Your task to perform on an android device: install app "Lyft - Rideshare, Bikes, Scooters & Transit" Image 0: 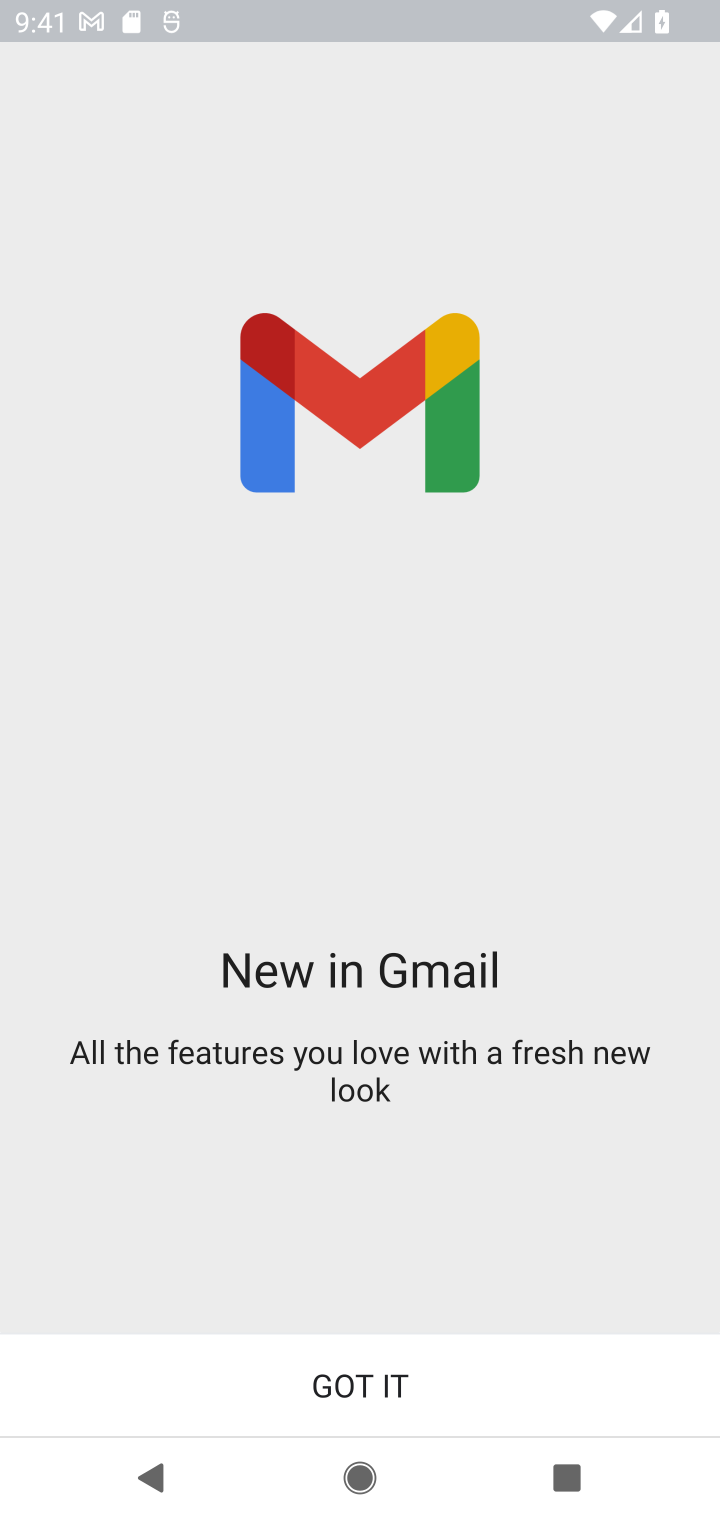
Step 0: press home button
Your task to perform on an android device: install app "Lyft - Rideshare, Bikes, Scooters & Transit" Image 1: 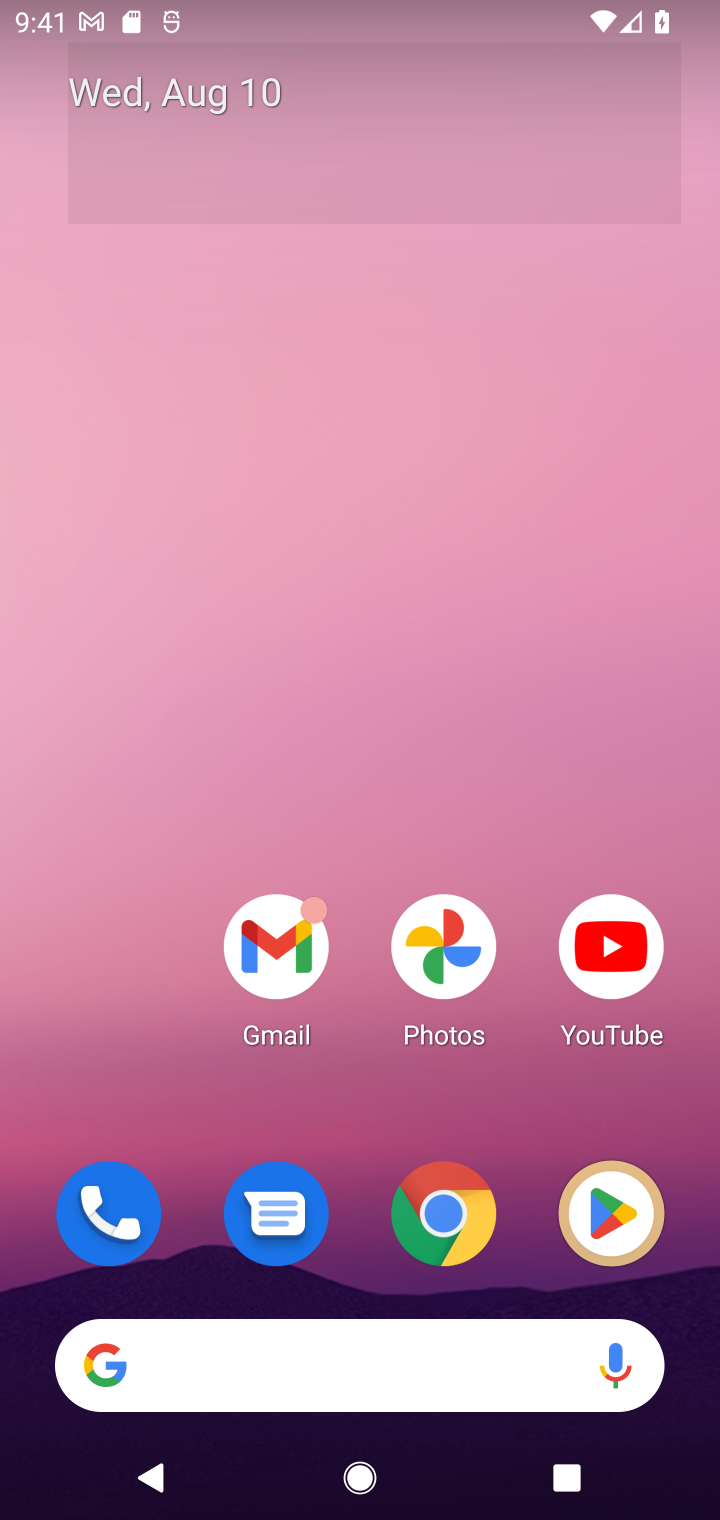
Step 1: drag from (189, 1103) to (241, 52)
Your task to perform on an android device: install app "Lyft - Rideshare, Bikes, Scooters & Transit" Image 2: 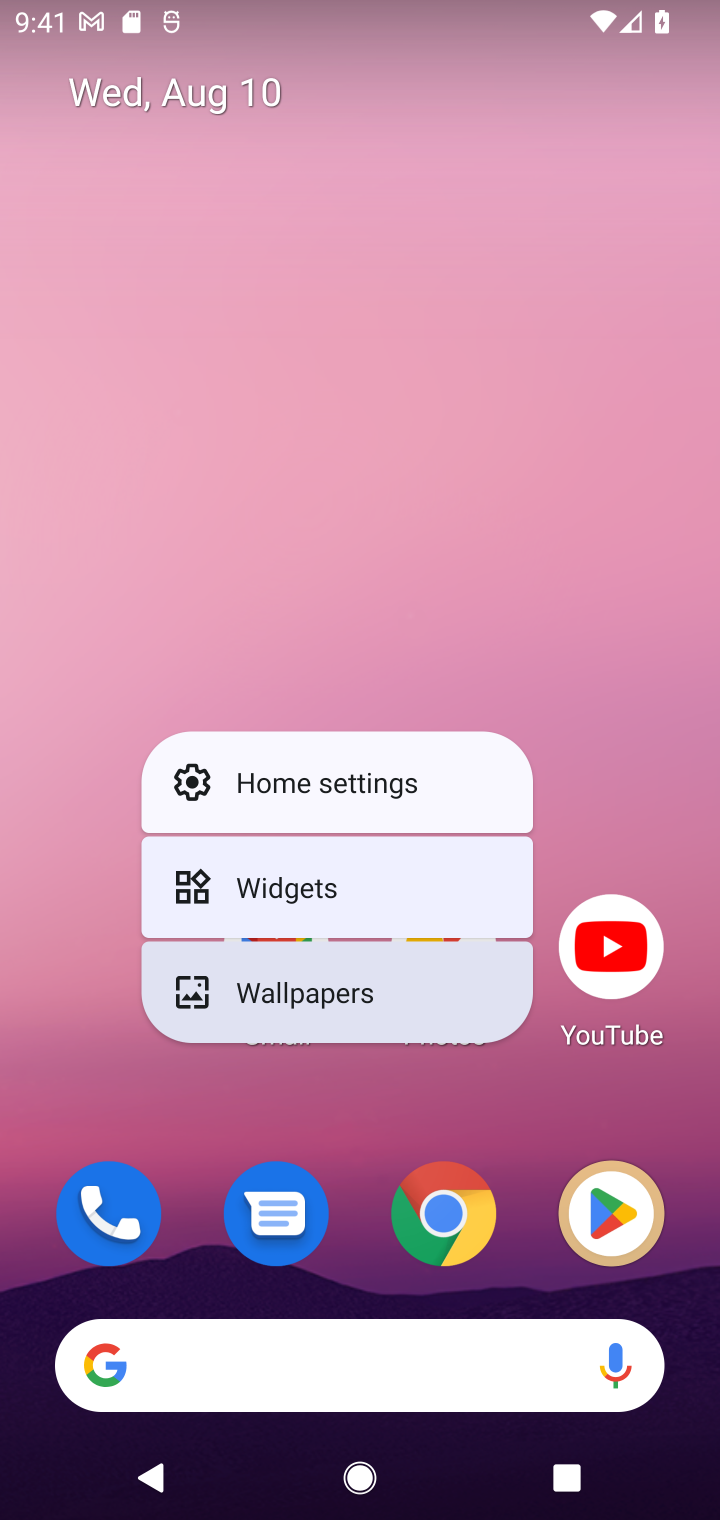
Step 2: click (637, 720)
Your task to perform on an android device: install app "Lyft - Rideshare, Bikes, Scooters & Transit" Image 3: 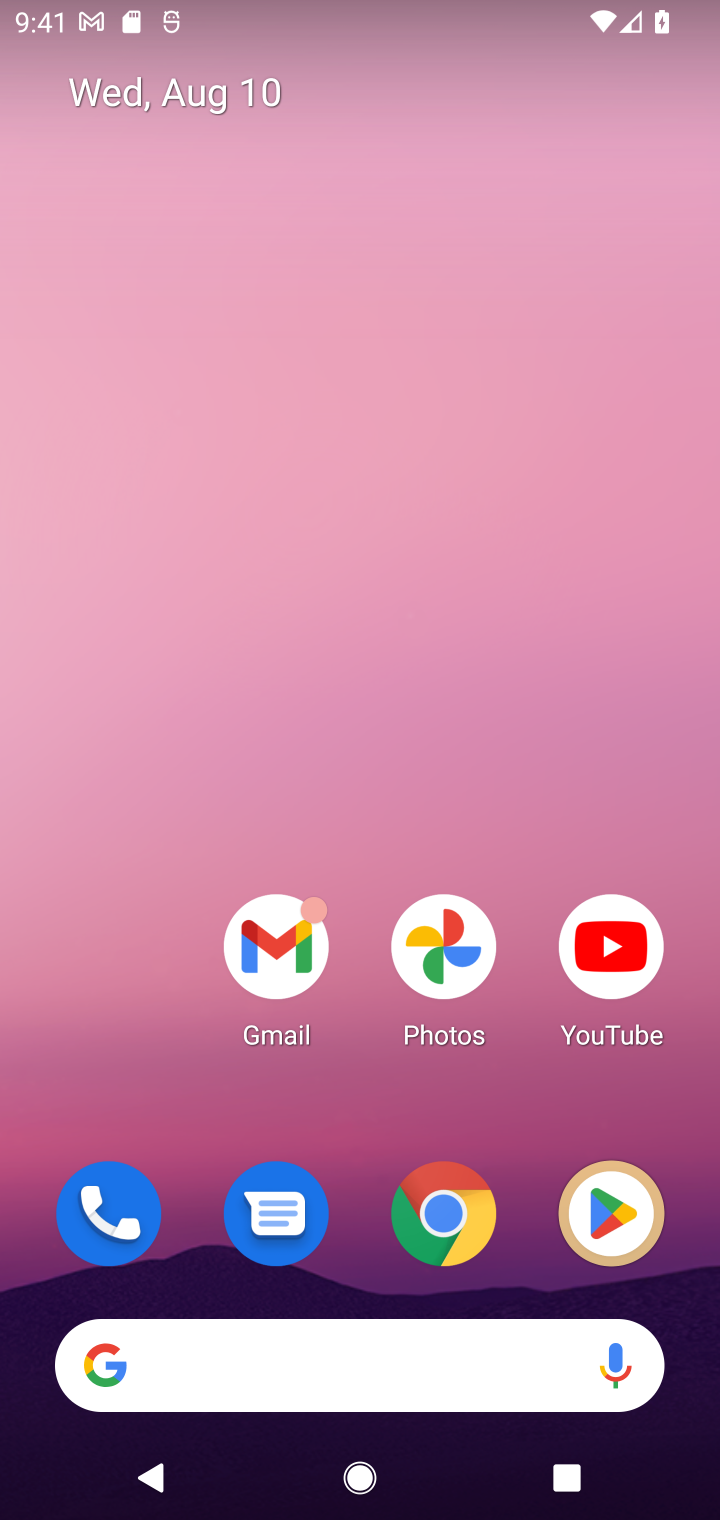
Step 3: drag from (164, 1063) to (214, 56)
Your task to perform on an android device: install app "Lyft - Rideshare, Bikes, Scooters & Transit" Image 4: 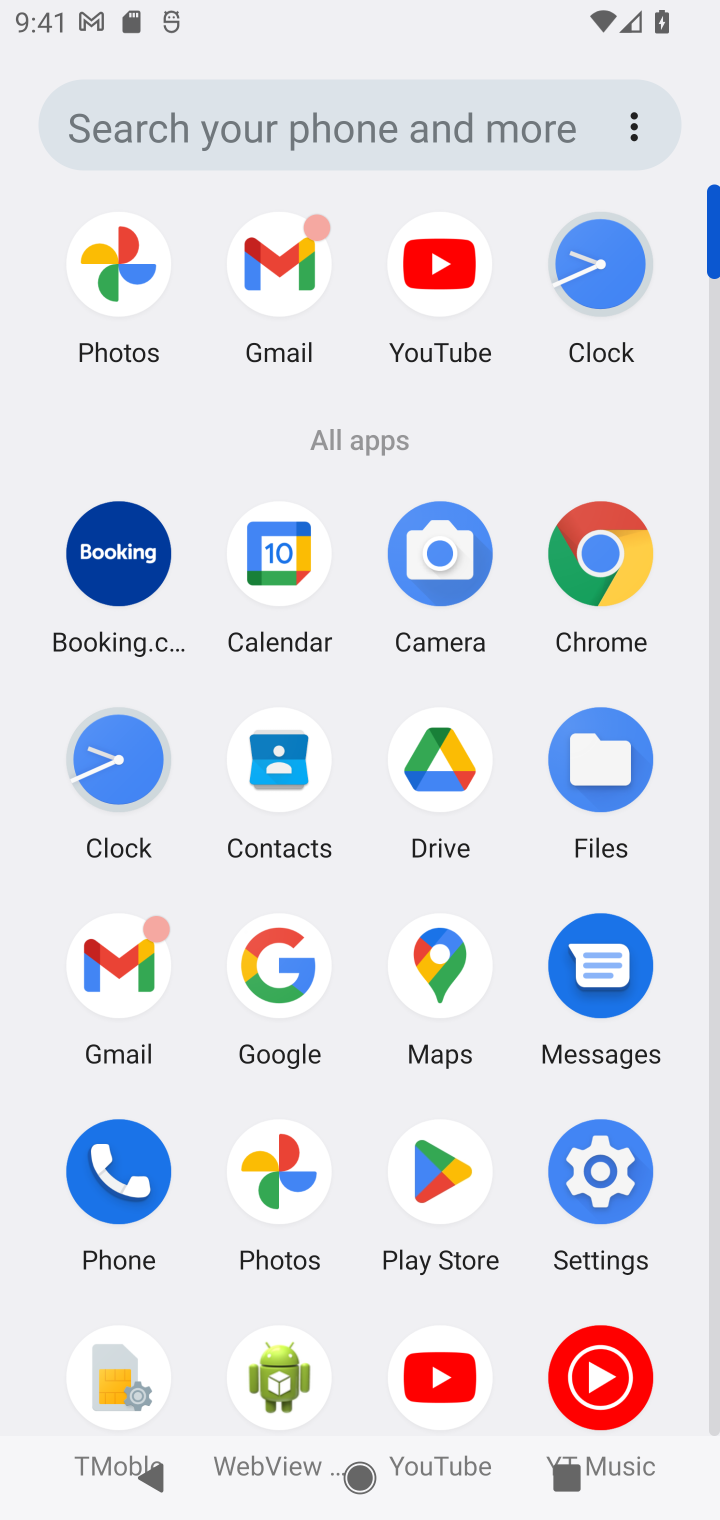
Step 4: click (436, 1182)
Your task to perform on an android device: install app "Lyft - Rideshare, Bikes, Scooters & Transit" Image 5: 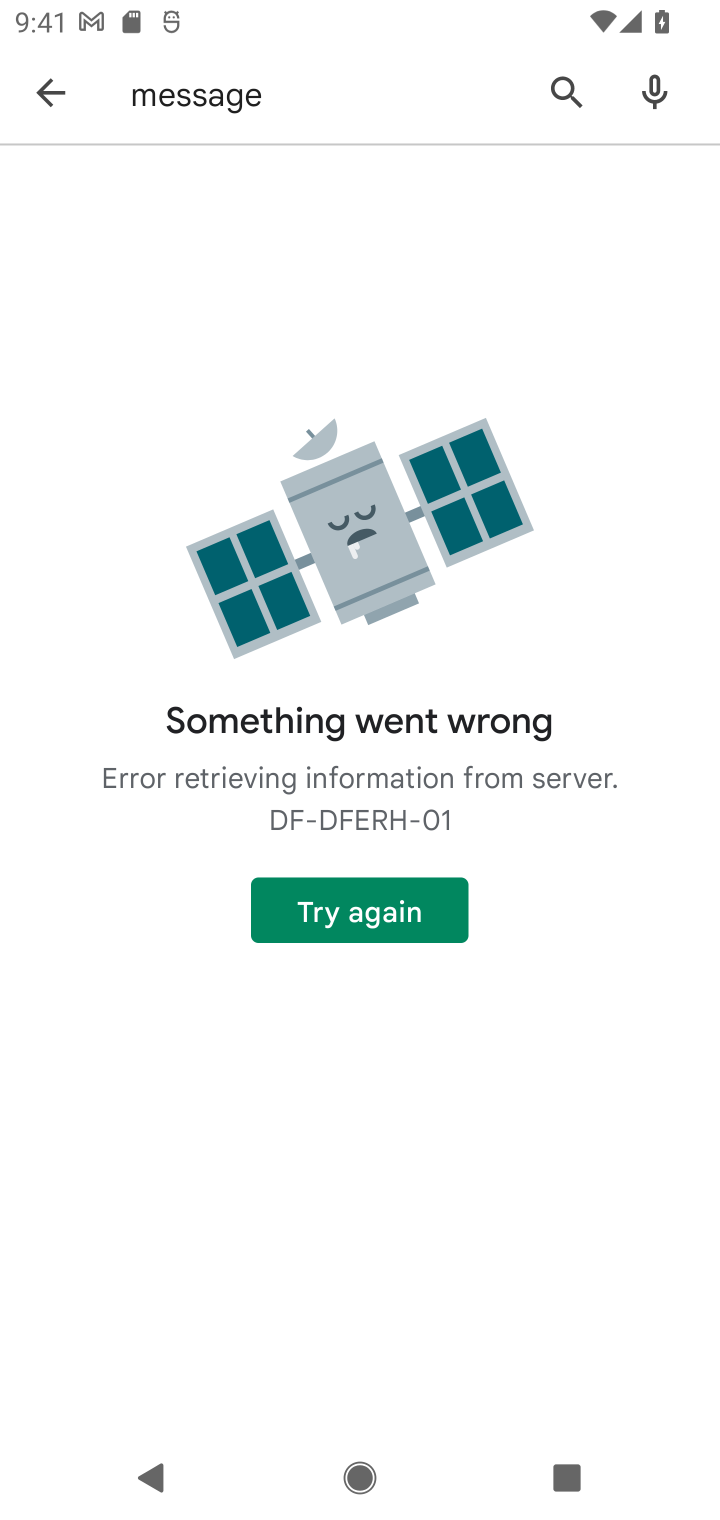
Step 5: task complete